Your task to perform on an android device: What is the recent news? Image 0: 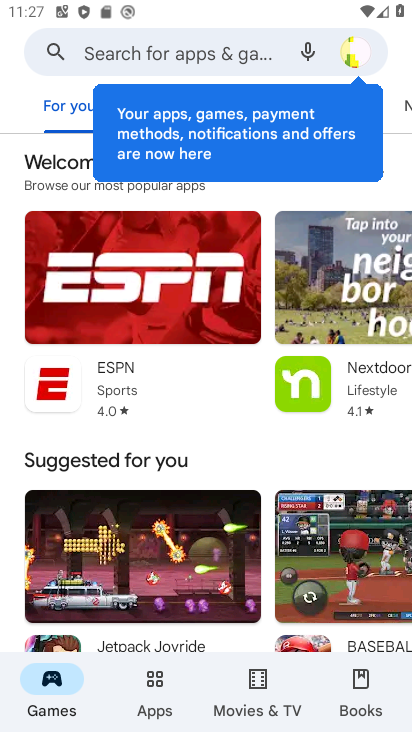
Step 0: task complete